Your task to perform on an android device: turn on bluetooth scan Image 0: 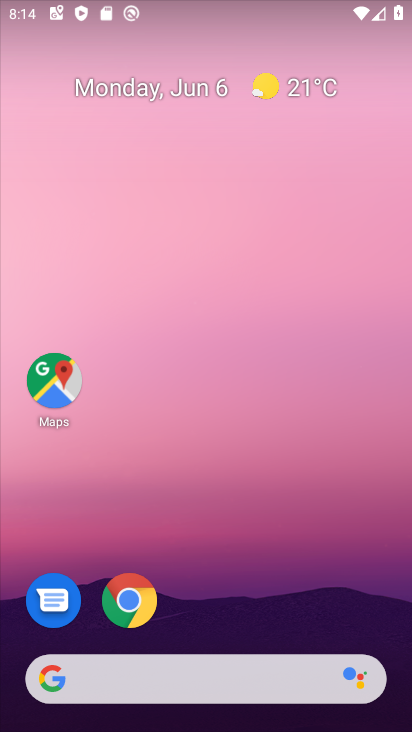
Step 0: drag from (373, 615) to (330, 192)
Your task to perform on an android device: turn on bluetooth scan Image 1: 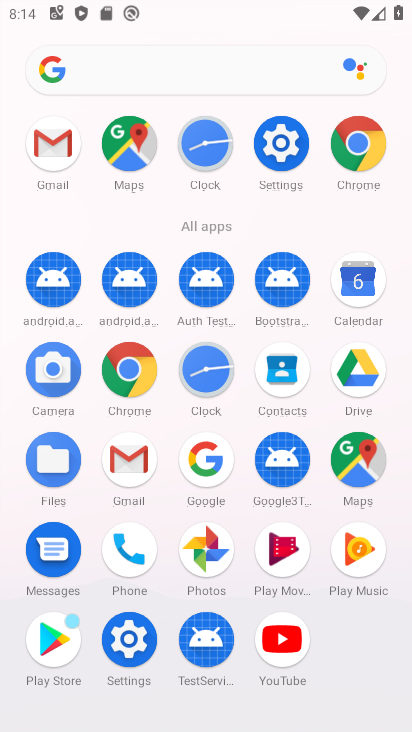
Step 1: click (125, 635)
Your task to perform on an android device: turn on bluetooth scan Image 2: 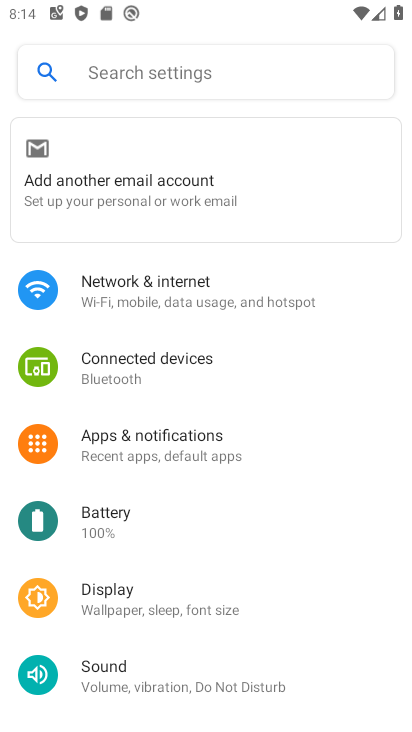
Step 2: drag from (281, 637) to (227, 358)
Your task to perform on an android device: turn on bluetooth scan Image 3: 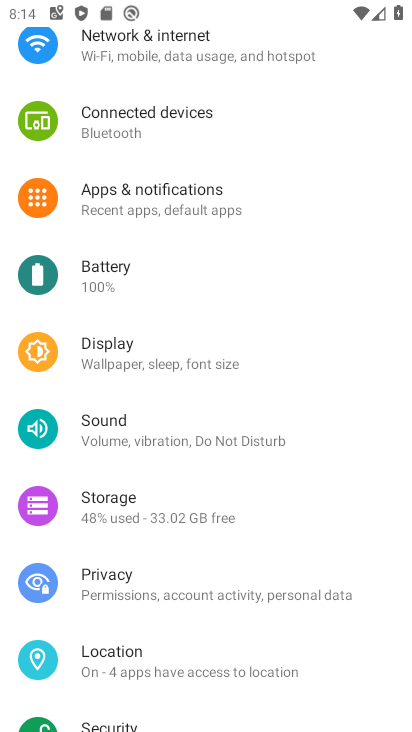
Step 3: click (109, 652)
Your task to perform on an android device: turn on bluetooth scan Image 4: 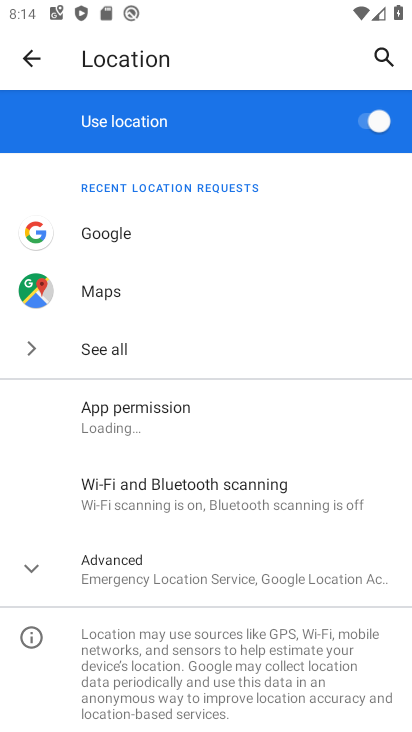
Step 4: click (157, 478)
Your task to perform on an android device: turn on bluetooth scan Image 5: 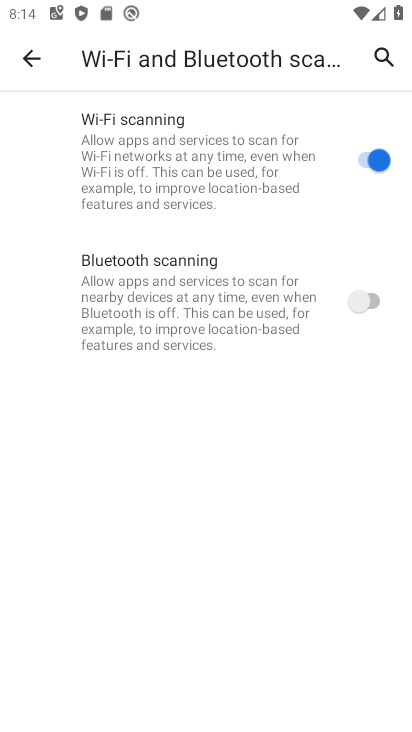
Step 5: click (378, 298)
Your task to perform on an android device: turn on bluetooth scan Image 6: 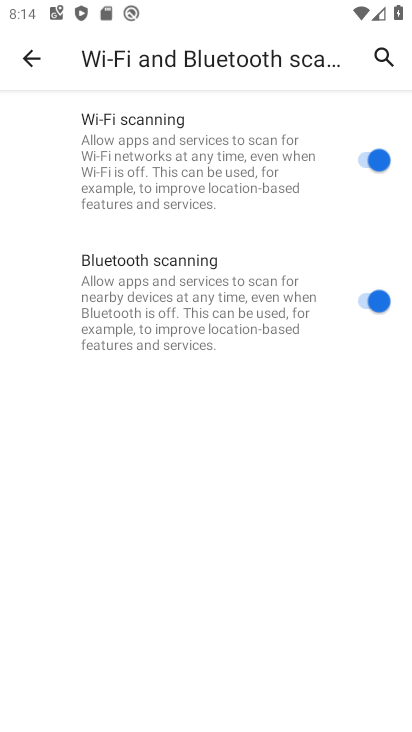
Step 6: task complete